Your task to perform on an android device: What's the weather today? Image 0: 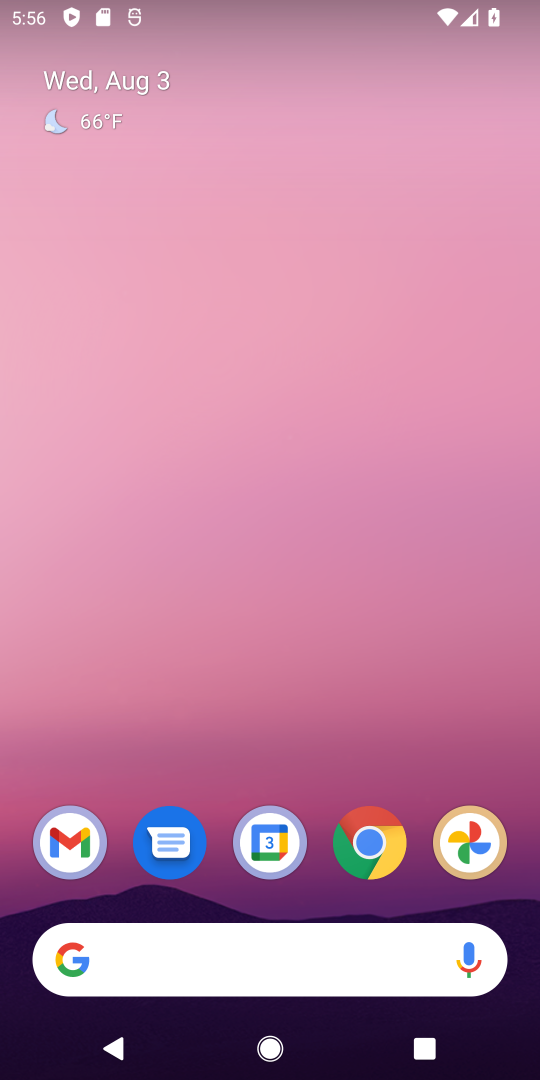
Step 0: drag from (315, 1040) to (348, 20)
Your task to perform on an android device: What's the weather today? Image 1: 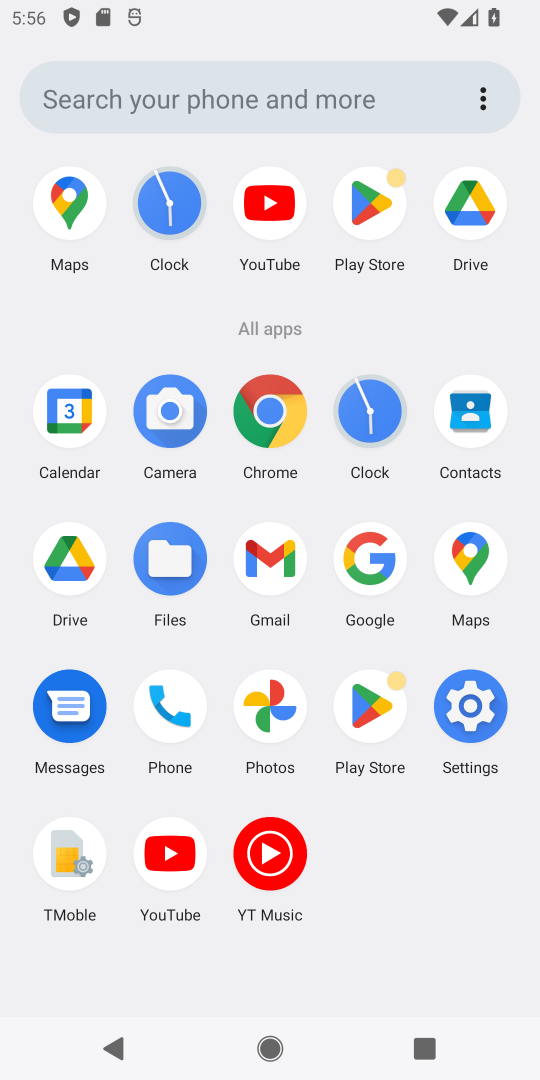
Step 1: drag from (101, 1022) to (4, 1026)
Your task to perform on an android device: What's the weather today? Image 2: 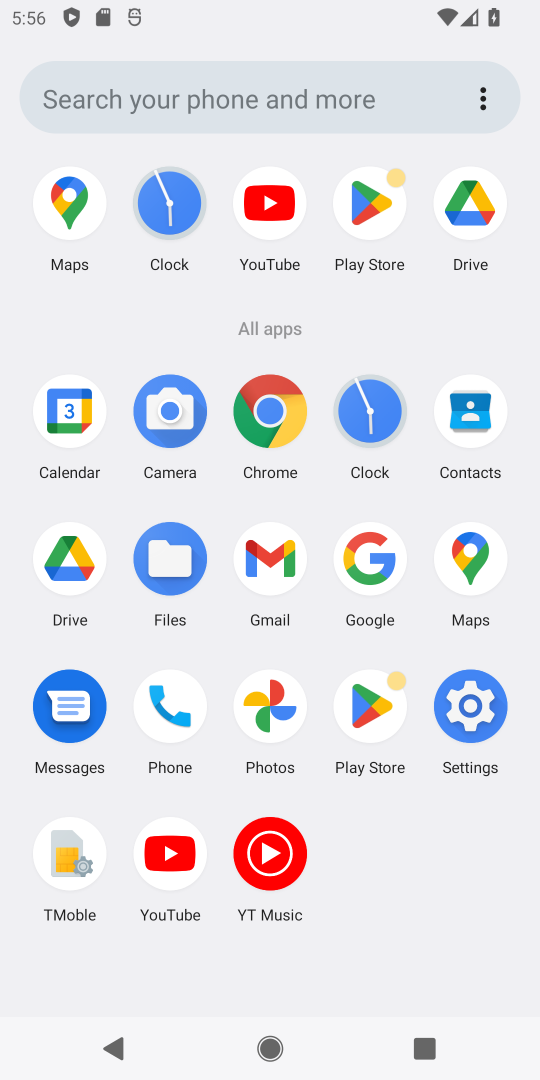
Step 2: click (242, 93)
Your task to perform on an android device: What's the weather today? Image 3: 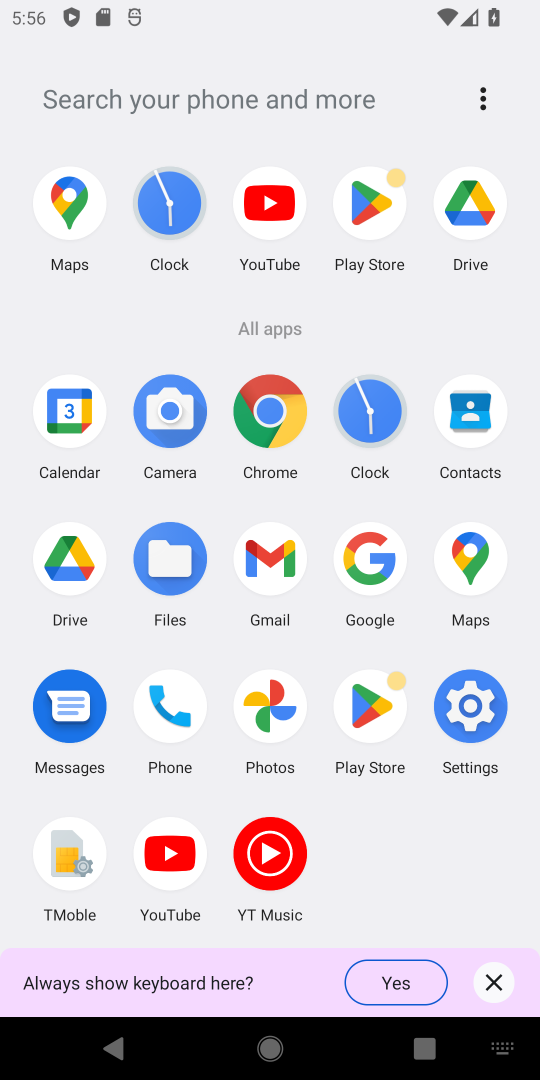
Step 3: click (364, 571)
Your task to perform on an android device: What's the weather today? Image 4: 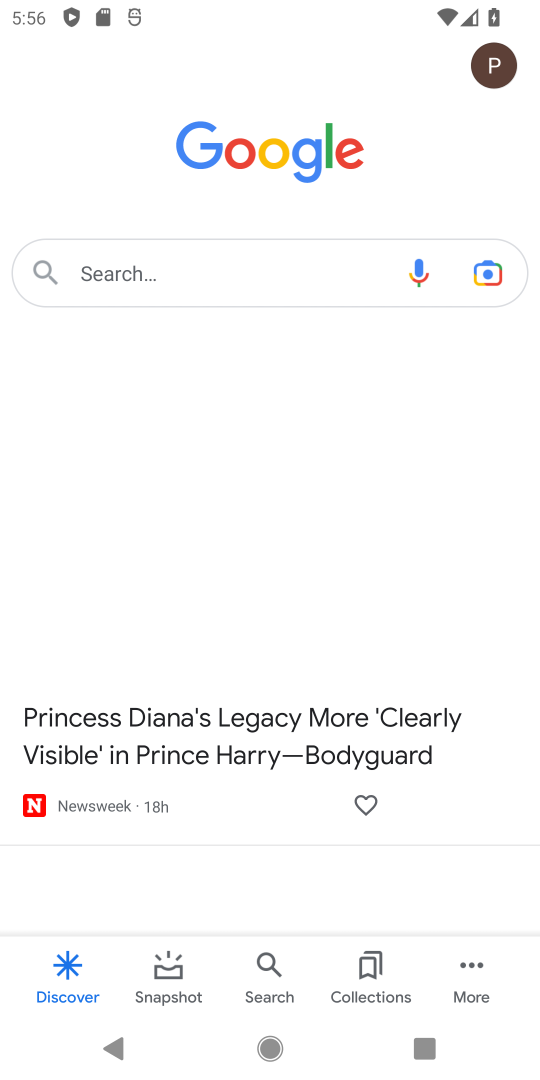
Step 4: click (295, 268)
Your task to perform on an android device: What's the weather today? Image 5: 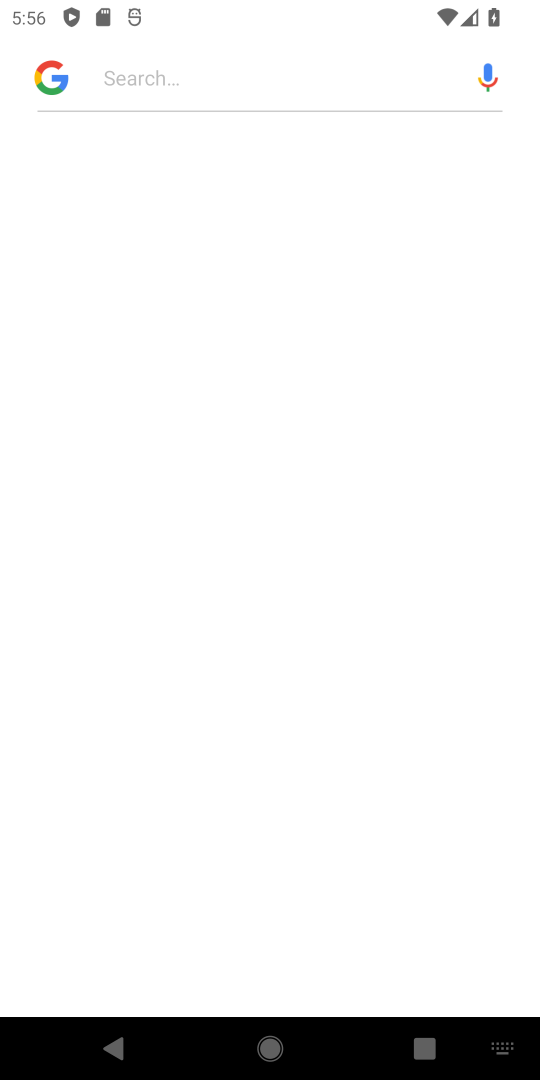
Step 5: type " What's the weather today?"
Your task to perform on an android device: What's the weather today? Image 6: 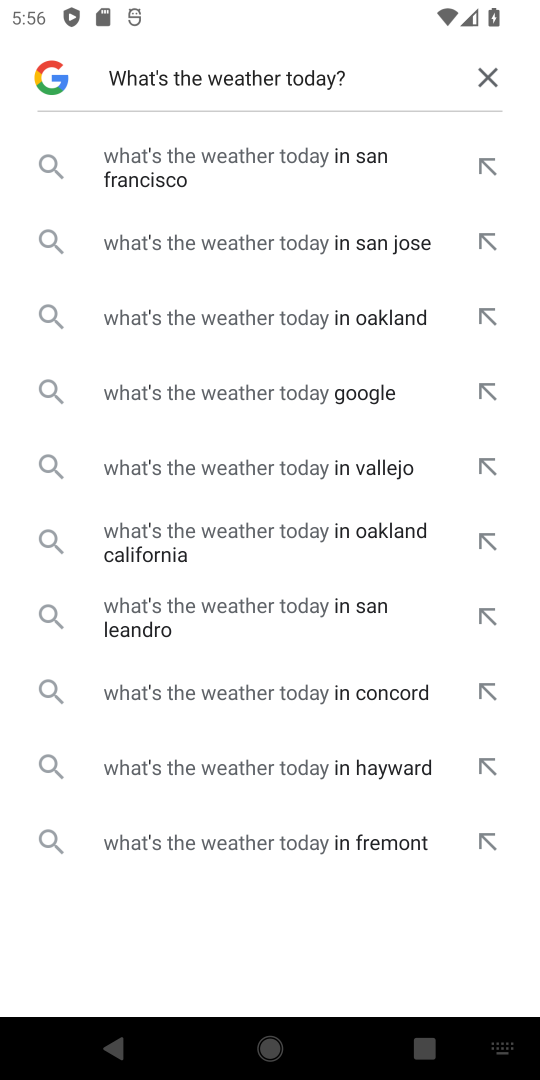
Step 6: press enter
Your task to perform on an android device: What's the weather today? Image 7: 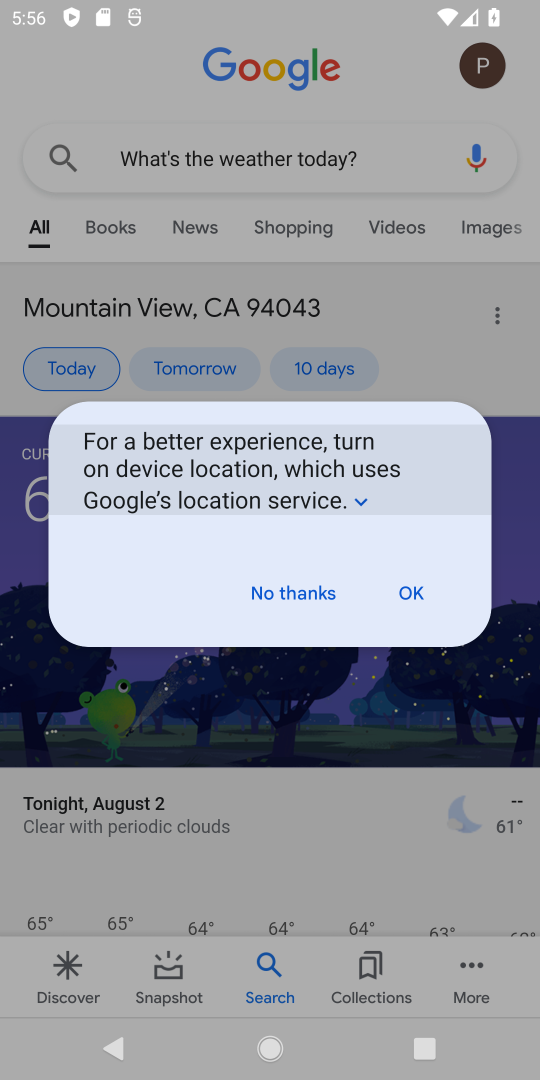
Step 7: task complete